Your task to perform on an android device: What's on my calendar today? Image 0: 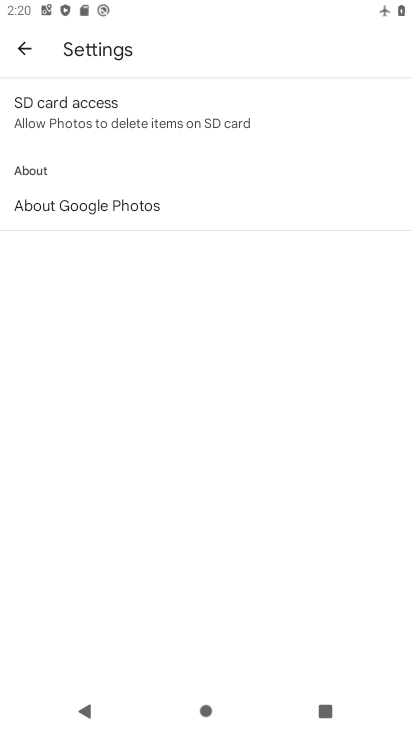
Step 0: press home button
Your task to perform on an android device: What's on my calendar today? Image 1: 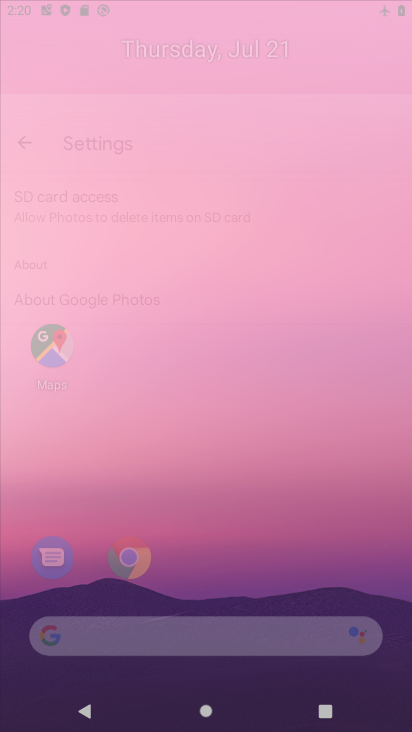
Step 1: drag from (185, 566) to (152, 0)
Your task to perform on an android device: What's on my calendar today? Image 2: 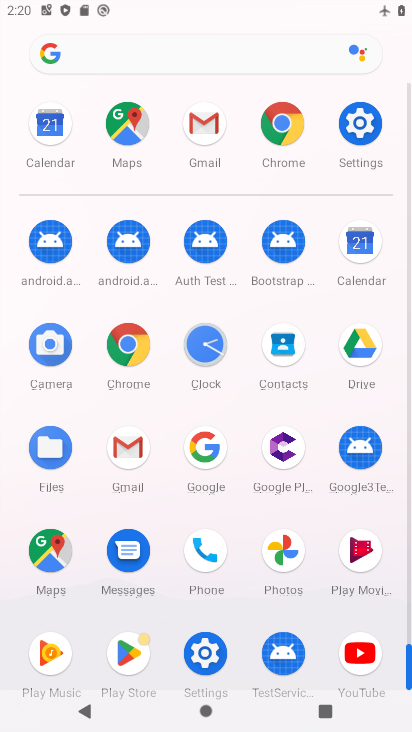
Step 2: click (360, 236)
Your task to perform on an android device: What's on my calendar today? Image 3: 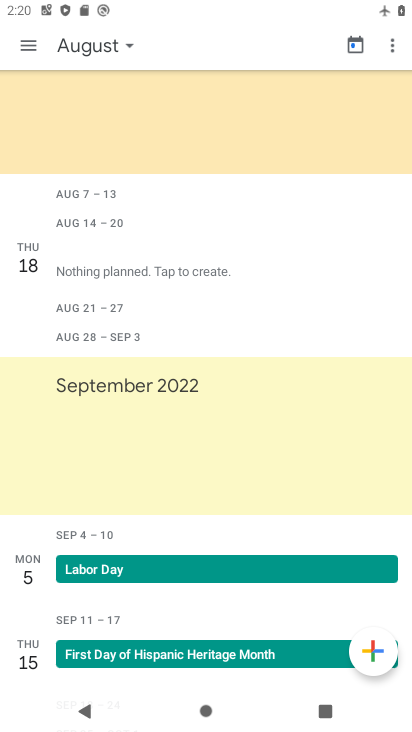
Step 3: drag from (221, 527) to (221, 131)
Your task to perform on an android device: What's on my calendar today? Image 4: 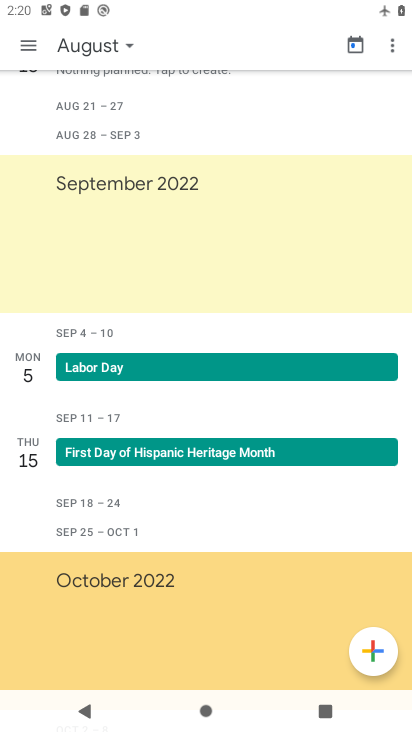
Step 4: click (120, 48)
Your task to perform on an android device: What's on my calendar today? Image 5: 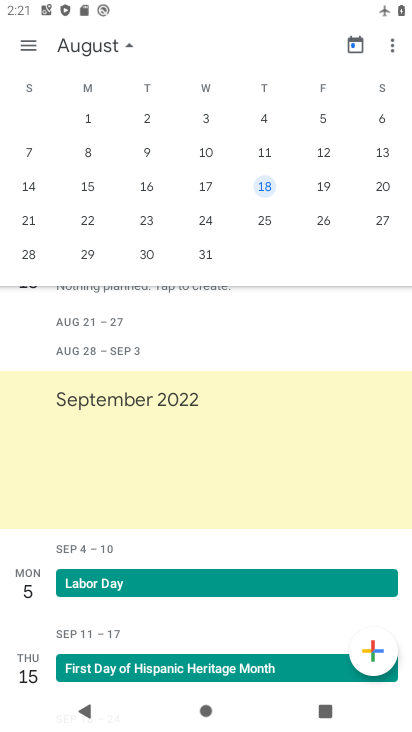
Step 5: click (263, 191)
Your task to perform on an android device: What's on my calendar today? Image 6: 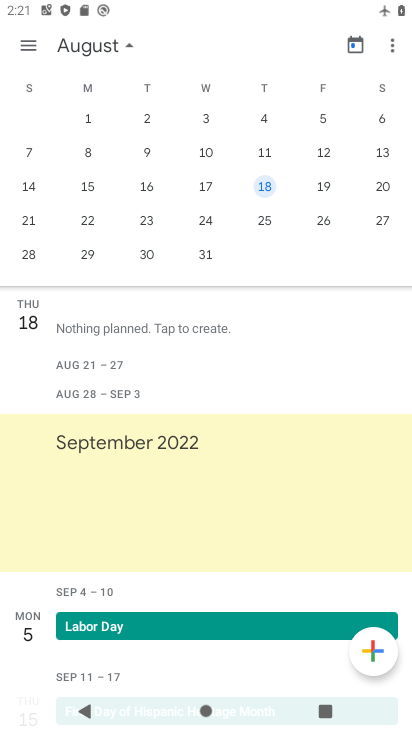
Step 6: task complete